Your task to perform on an android device: clear history in the chrome app Image 0: 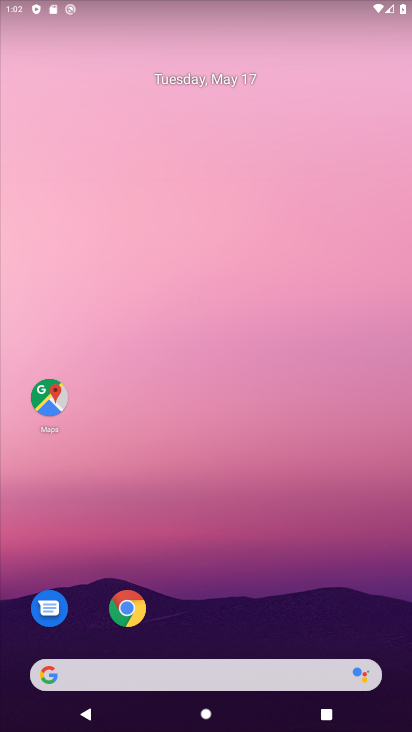
Step 0: click (131, 598)
Your task to perform on an android device: clear history in the chrome app Image 1: 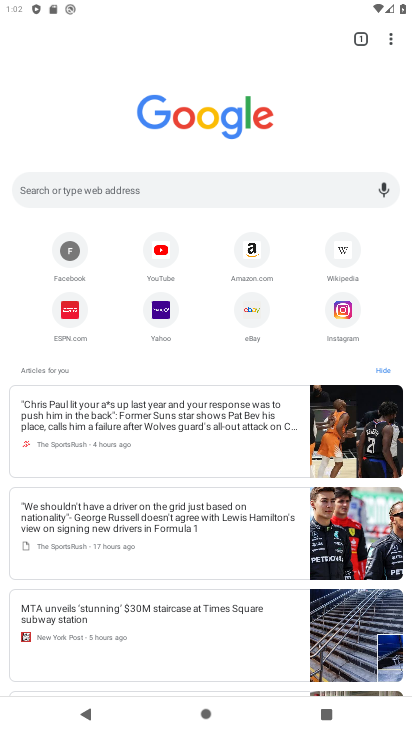
Step 1: click (390, 44)
Your task to perform on an android device: clear history in the chrome app Image 2: 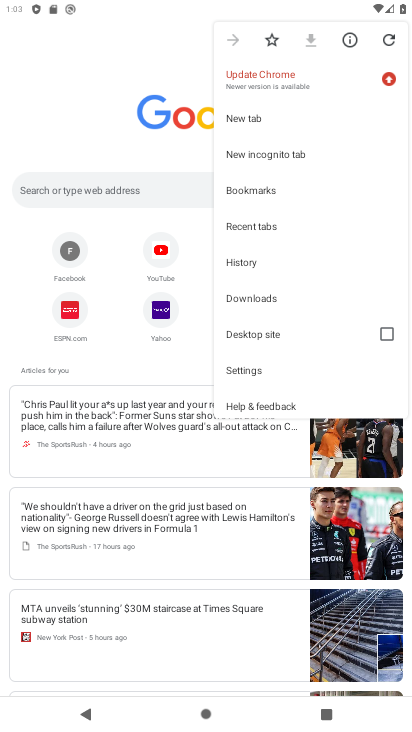
Step 2: click (252, 255)
Your task to perform on an android device: clear history in the chrome app Image 3: 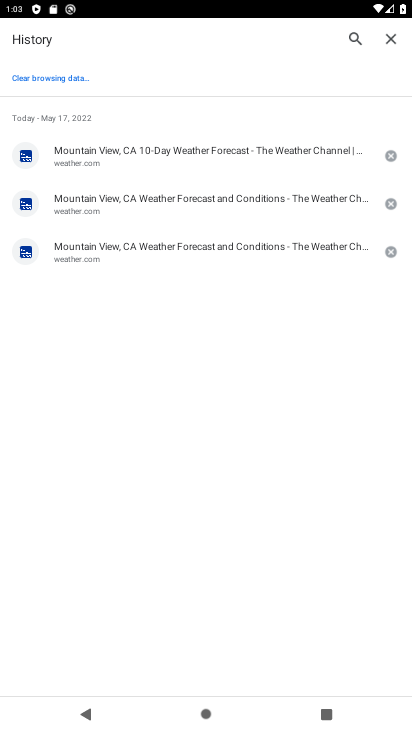
Step 3: click (64, 84)
Your task to perform on an android device: clear history in the chrome app Image 4: 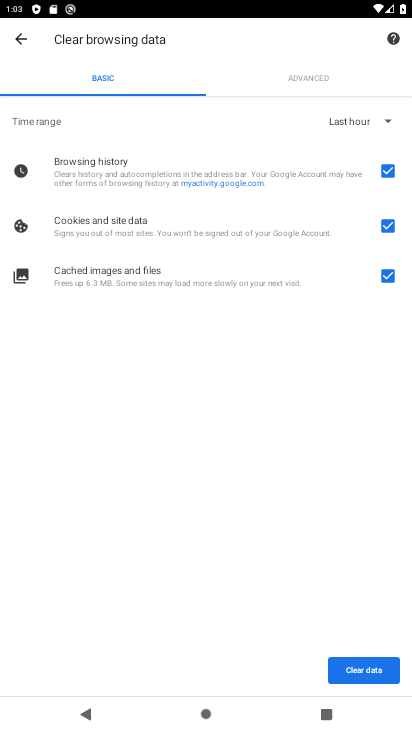
Step 4: click (353, 667)
Your task to perform on an android device: clear history in the chrome app Image 5: 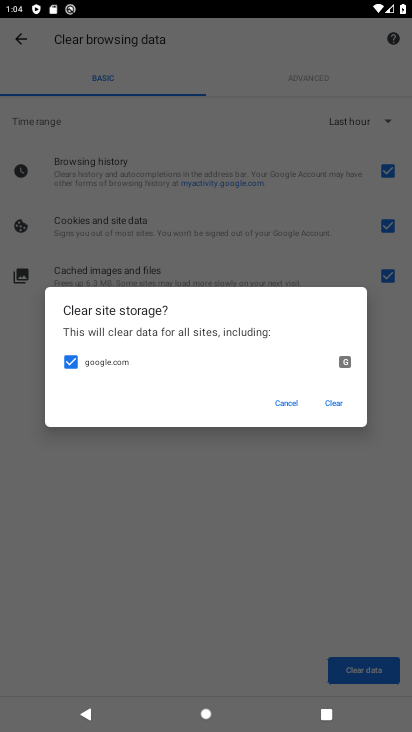
Step 5: click (335, 395)
Your task to perform on an android device: clear history in the chrome app Image 6: 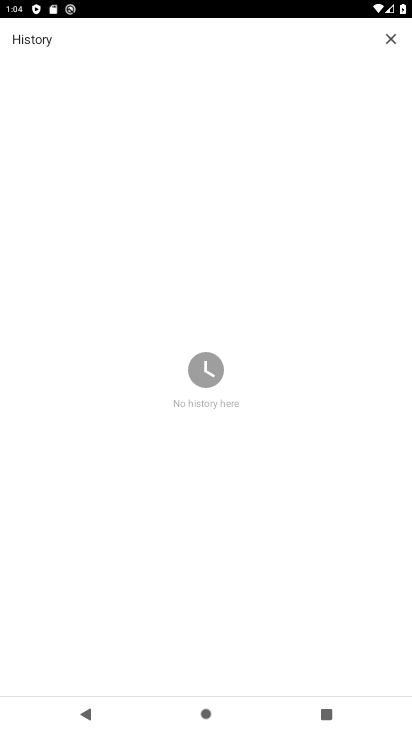
Step 6: task complete